Your task to perform on an android device: Open Yahoo.com Image 0: 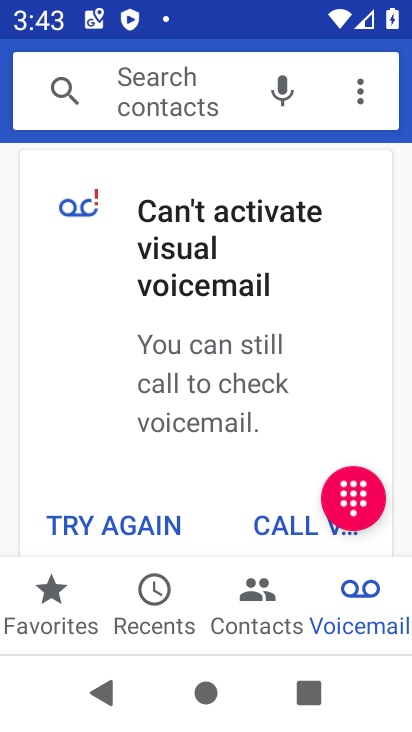
Step 0: press home button
Your task to perform on an android device: Open Yahoo.com Image 1: 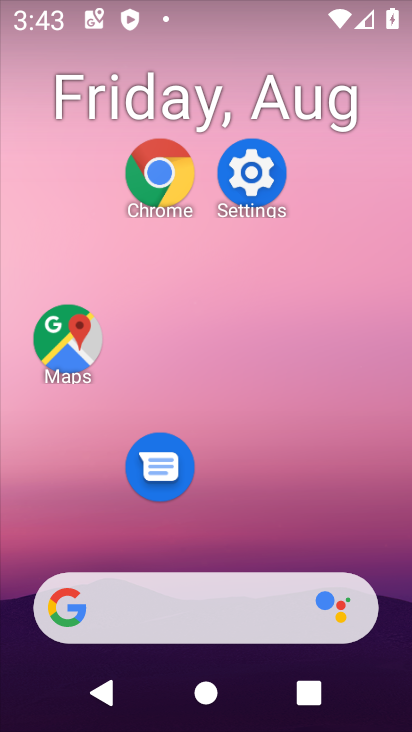
Step 1: click (82, 323)
Your task to perform on an android device: Open Yahoo.com Image 2: 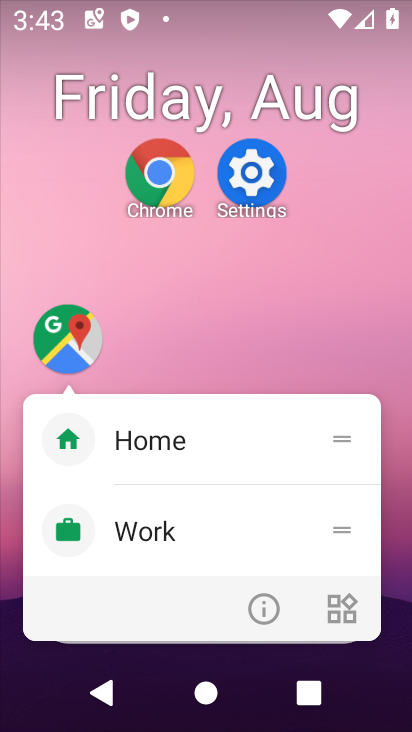
Step 2: click (288, 336)
Your task to perform on an android device: Open Yahoo.com Image 3: 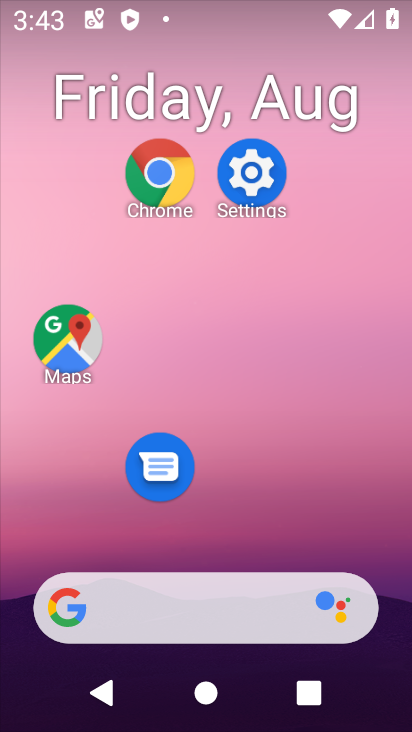
Step 3: click (156, 177)
Your task to perform on an android device: Open Yahoo.com Image 4: 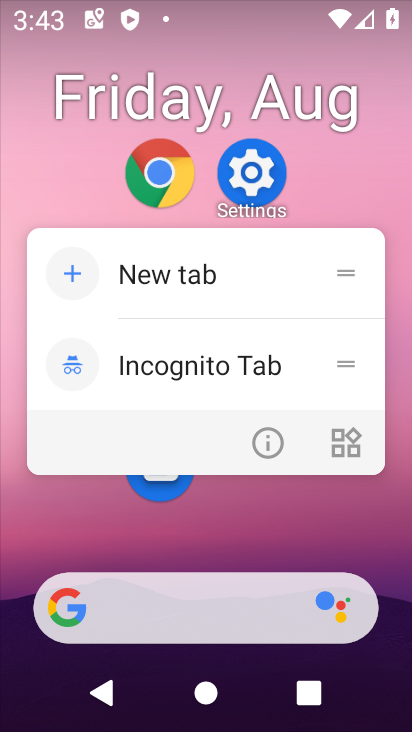
Step 4: click (156, 177)
Your task to perform on an android device: Open Yahoo.com Image 5: 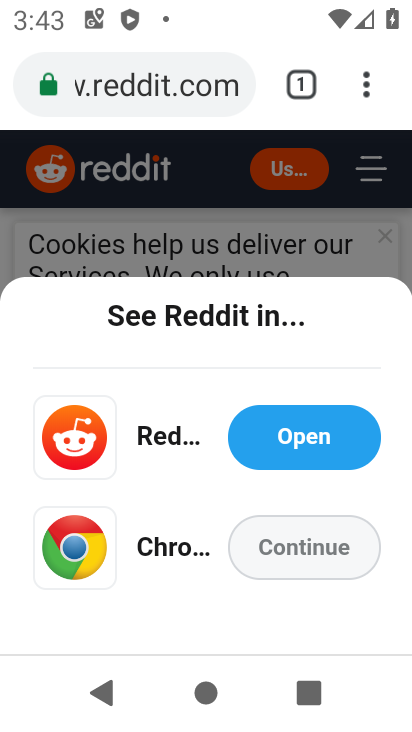
Step 5: click (190, 85)
Your task to perform on an android device: Open Yahoo.com Image 6: 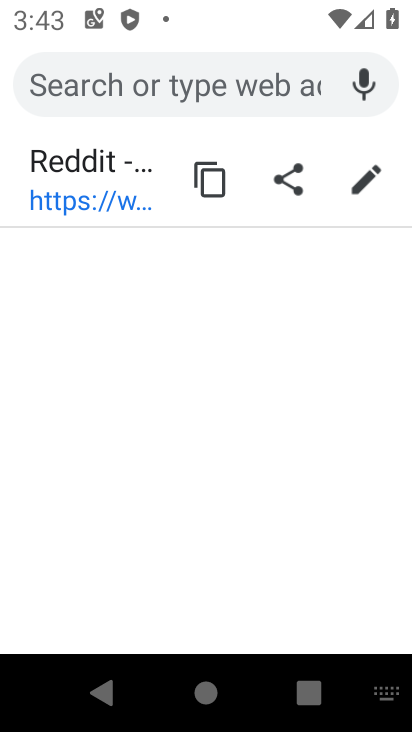
Step 6: click (281, 474)
Your task to perform on an android device: Open Yahoo.com Image 7: 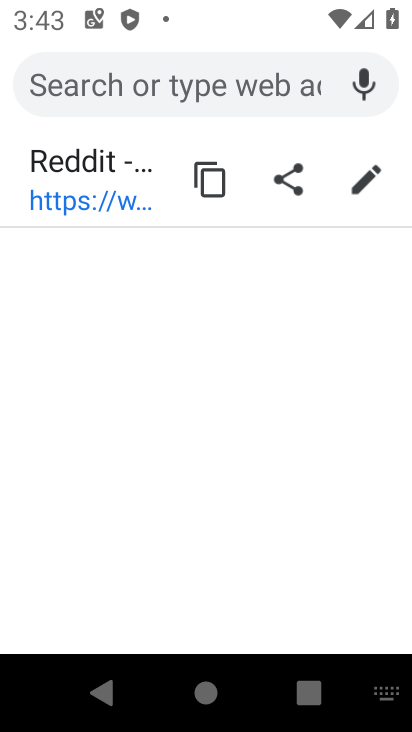
Step 7: type " Yahoo.com"
Your task to perform on an android device: Open Yahoo.com Image 8: 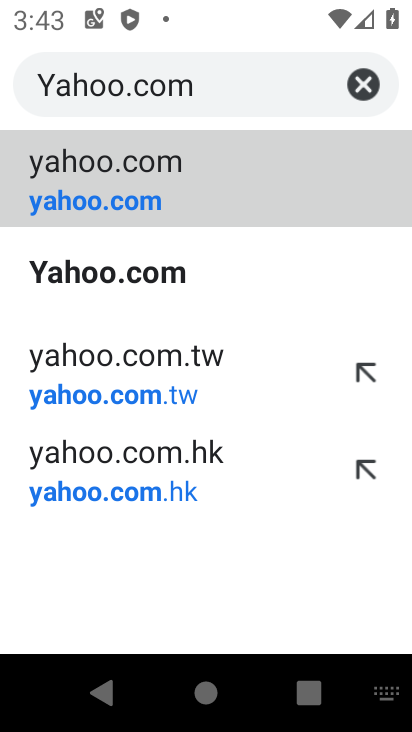
Step 8: click (71, 199)
Your task to perform on an android device: Open Yahoo.com Image 9: 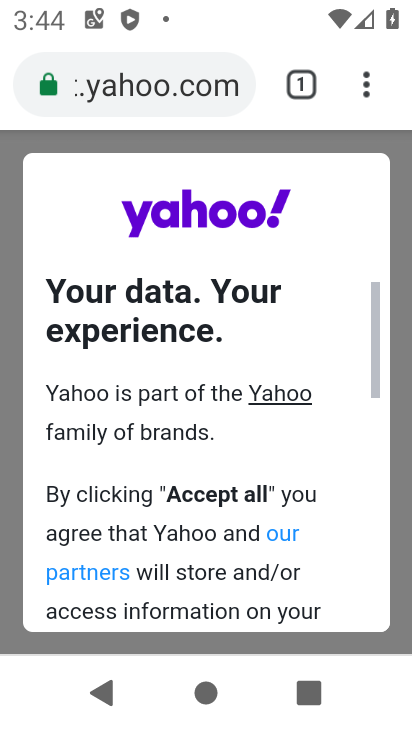
Step 9: drag from (210, 529) to (169, 158)
Your task to perform on an android device: Open Yahoo.com Image 10: 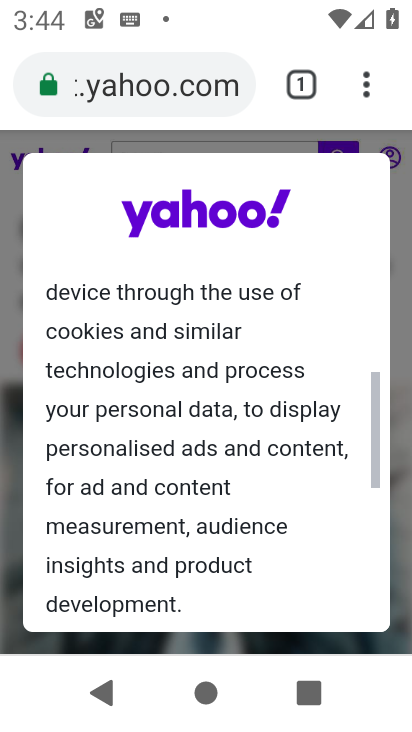
Step 10: drag from (210, 521) to (154, 201)
Your task to perform on an android device: Open Yahoo.com Image 11: 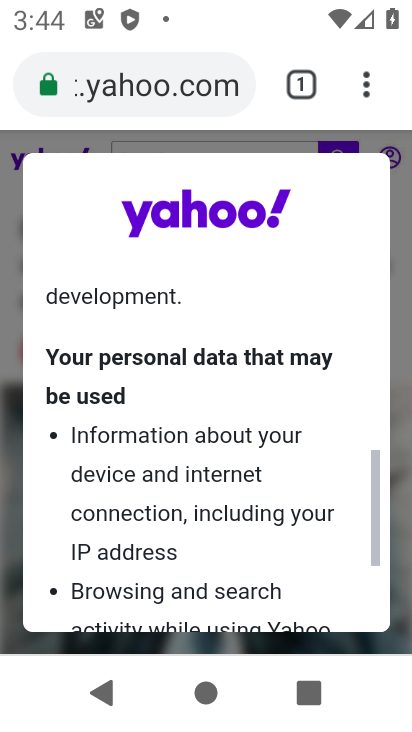
Step 11: drag from (229, 598) to (184, 214)
Your task to perform on an android device: Open Yahoo.com Image 12: 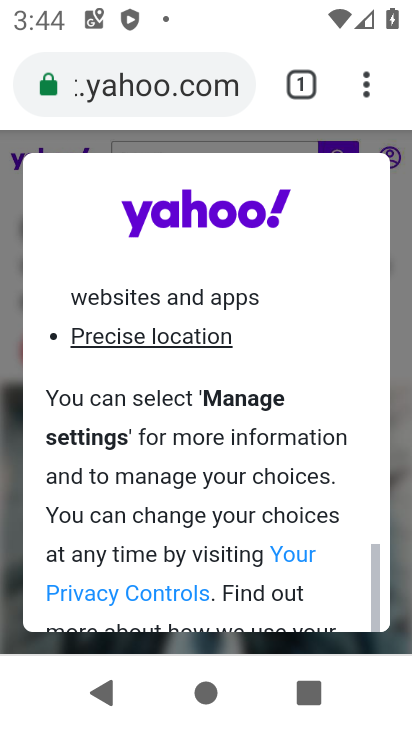
Step 12: drag from (173, 574) to (160, 232)
Your task to perform on an android device: Open Yahoo.com Image 13: 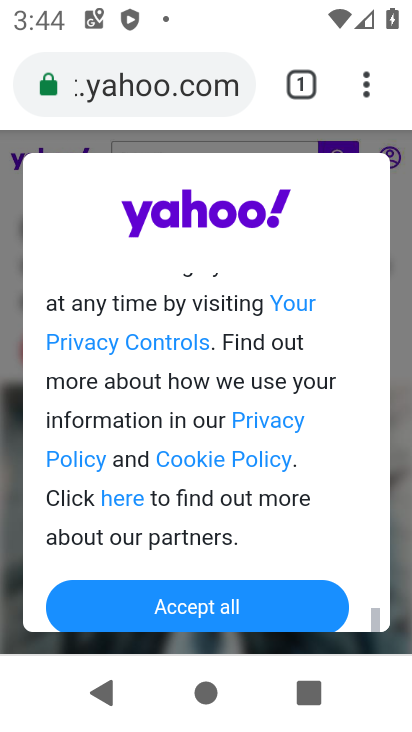
Step 13: click (175, 603)
Your task to perform on an android device: Open Yahoo.com Image 14: 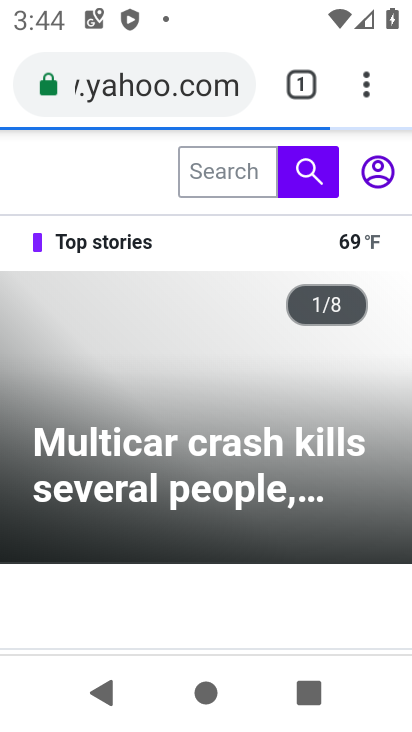
Step 14: task complete